Your task to perform on an android device: snooze an email in the gmail app Image 0: 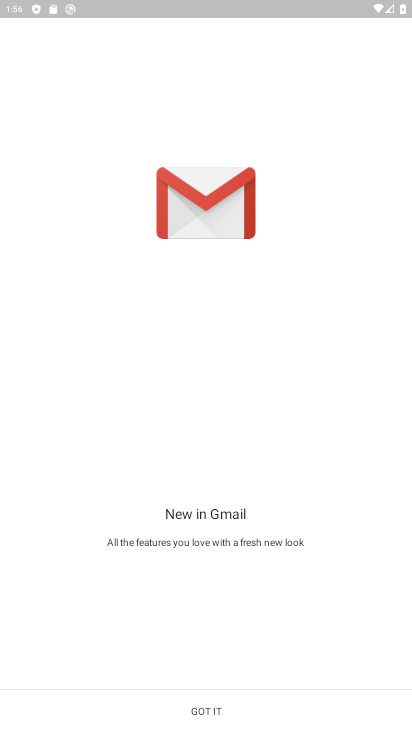
Step 0: click (184, 705)
Your task to perform on an android device: snooze an email in the gmail app Image 1: 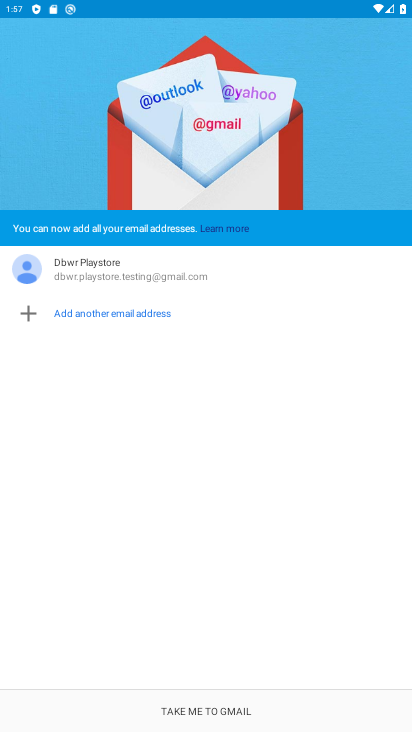
Step 1: click (183, 707)
Your task to perform on an android device: snooze an email in the gmail app Image 2: 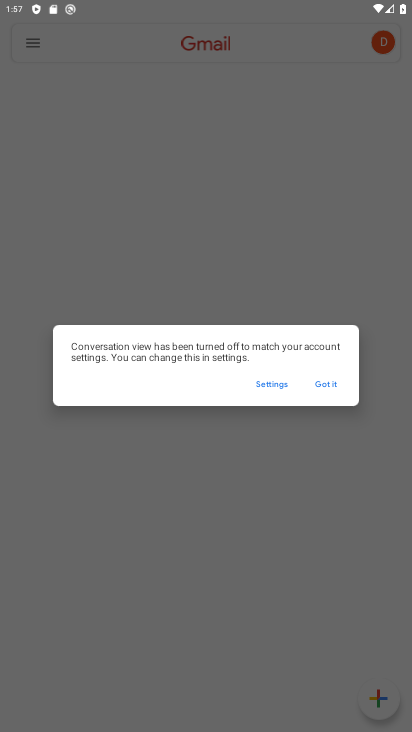
Step 2: click (323, 375)
Your task to perform on an android device: snooze an email in the gmail app Image 3: 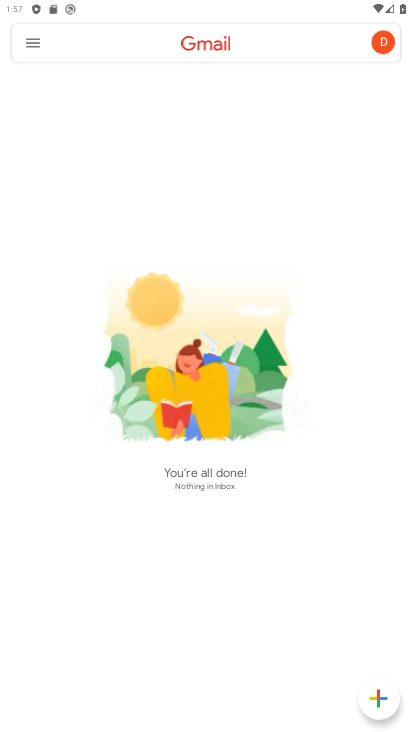
Step 3: click (323, 375)
Your task to perform on an android device: snooze an email in the gmail app Image 4: 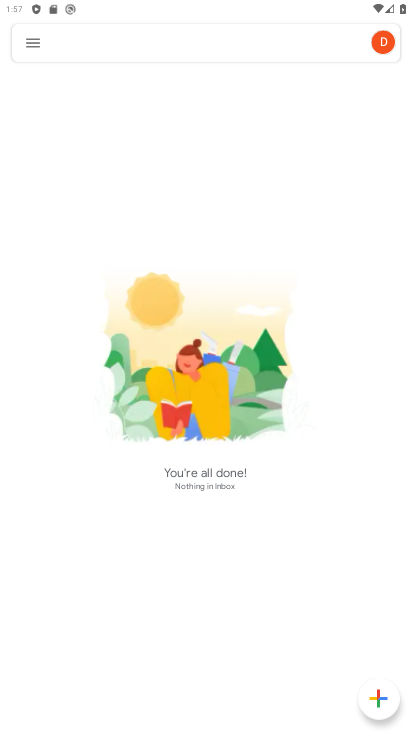
Step 4: click (40, 48)
Your task to perform on an android device: snooze an email in the gmail app Image 5: 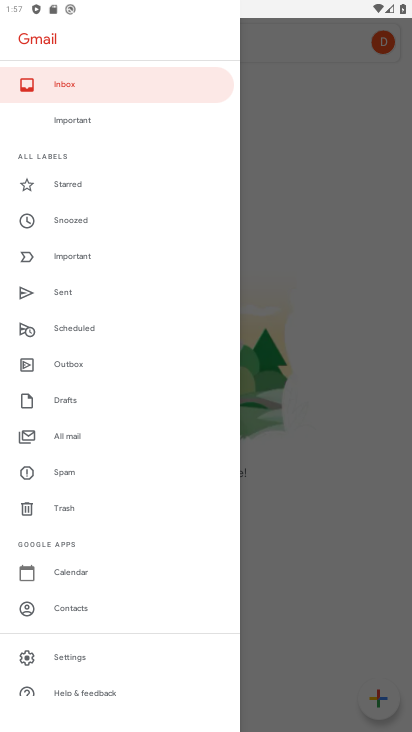
Step 5: click (77, 220)
Your task to perform on an android device: snooze an email in the gmail app Image 6: 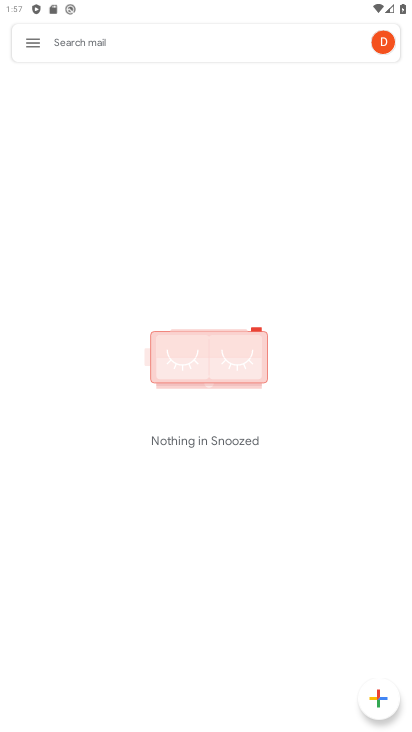
Step 6: task complete